Your task to perform on an android device: turn off translation in the chrome app Image 0: 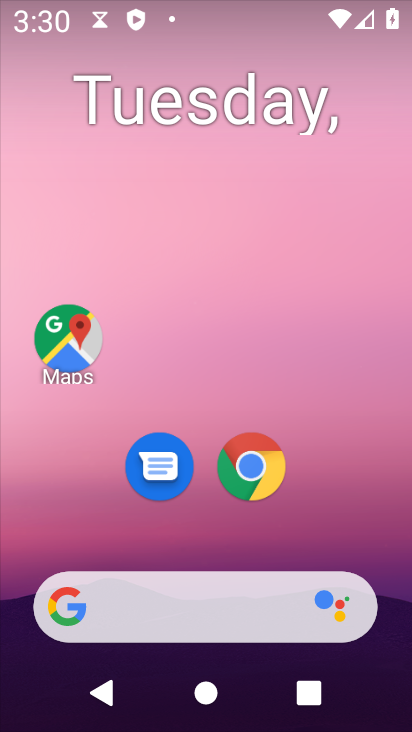
Step 0: drag from (354, 472) to (259, 23)
Your task to perform on an android device: turn off translation in the chrome app Image 1: 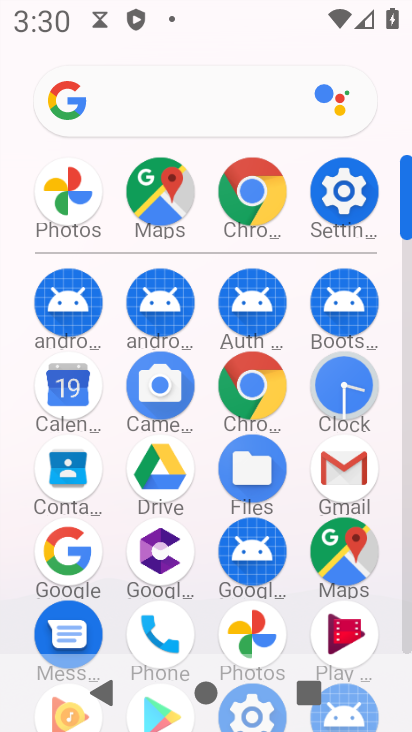
Step 1: click (251, 192)
Your task to perform on an android device: turn off translation in the chrome app Image 2: 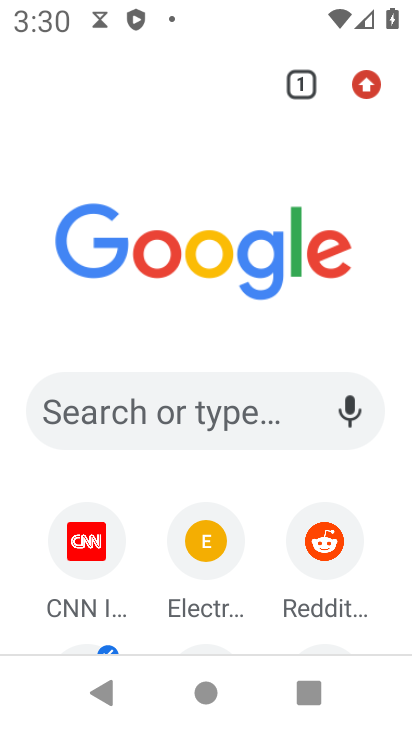
Step 2: drag from (365, 80) to (182, 517)
Your task to perform on an android device: turn off translation in the chrome app Image 3: 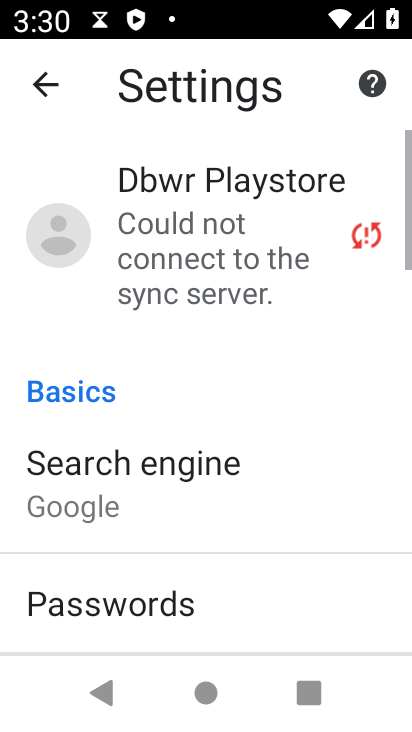
Step 3: drag from (221, 583) to (194, 102)
Your task to perform on an android device: turn off translation in the chrome app Image 4: 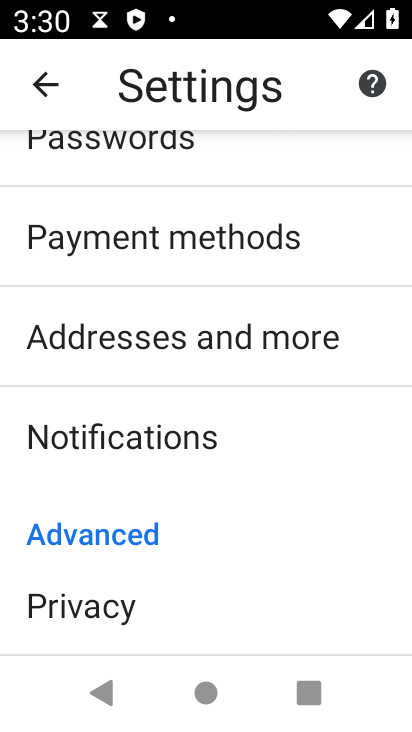
Step 4: drag from (186, 542) to (210, 169)
Your task to perform on an android device: turn off translation in the chrome app Image 5: 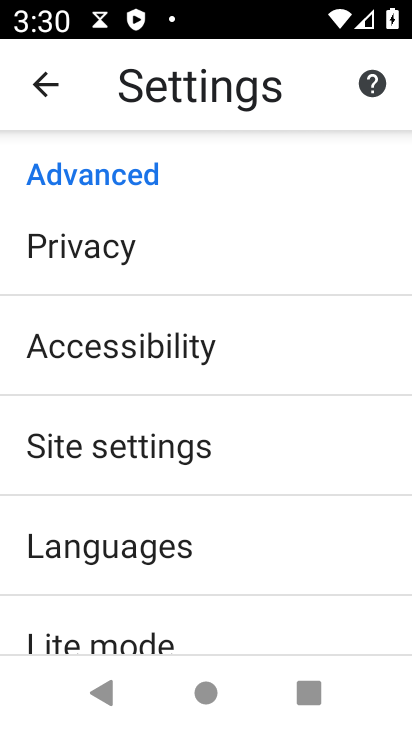
Step 5: click (161, 565)
Your task to perform on an android device: turn off translation in the chrome app Image 6: 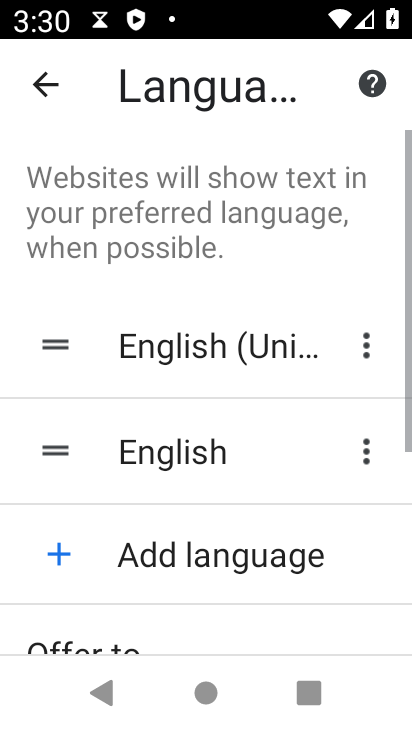
Step 6: task complete